Your task to perform on an android device: turn on priority inbox in the gmail app Image 0: 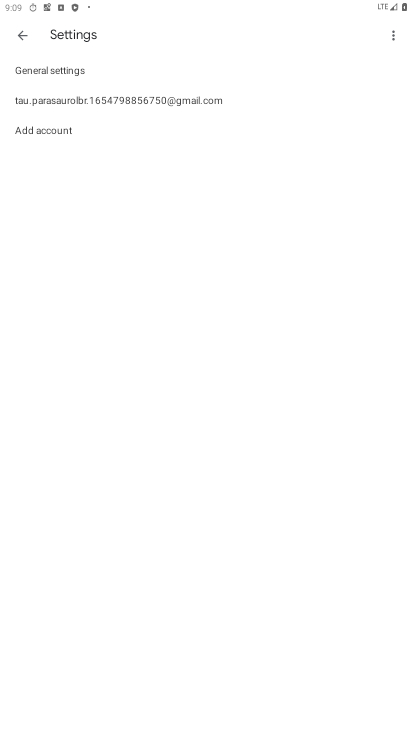
Step 0: press home button
Your task to perform on an android device: turn on priority inbox in the gmail app Image 1: 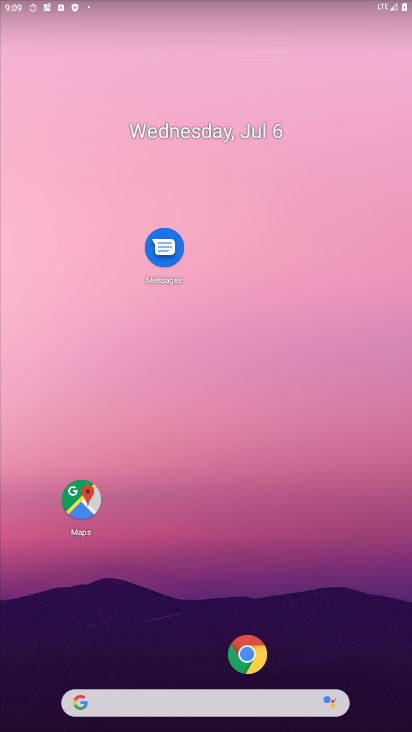
Step 1: drag from (182, 644) to (191, 94)
Your task to perform on an android device: turn on priority inbox in the gmail app Image 2: 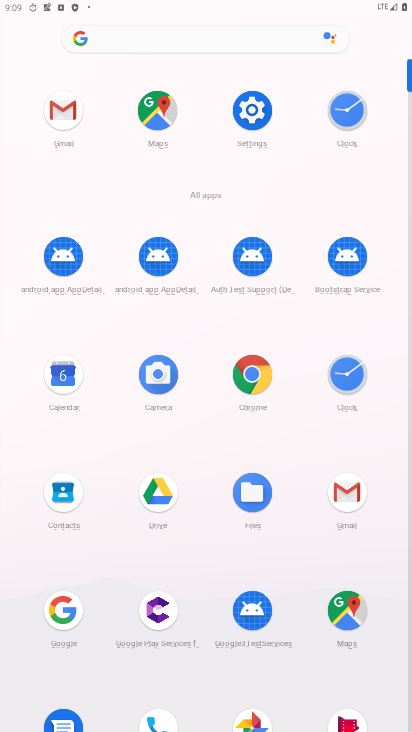
Step 2: click (46, 107)
Your task to perform on an android device: turn on priority inbox in the gmail app Image 3: 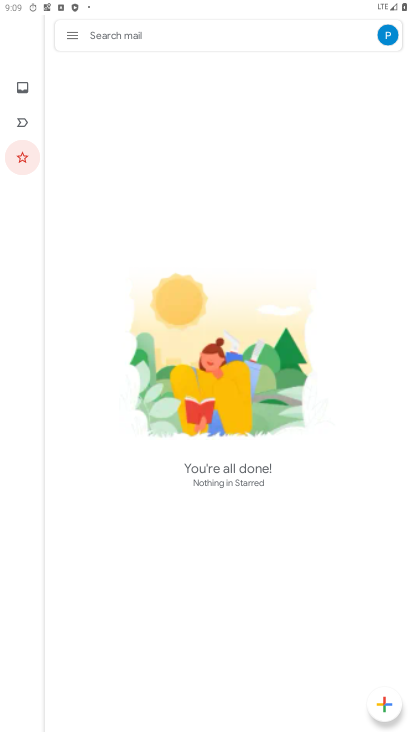
Step 3: click (73, 37)
Your task to perform on an android device: turn on priority inbox in the gmail app Image 4: 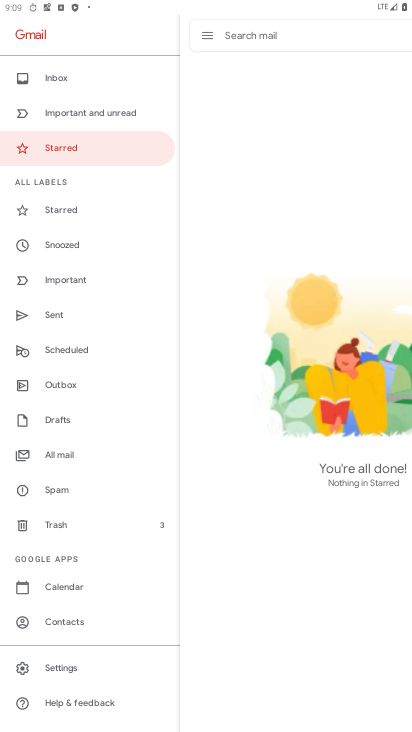
Step 4: click (54, 673)
Your task to perform on an android device: turn on priority inbox in the gmail app Image 5: 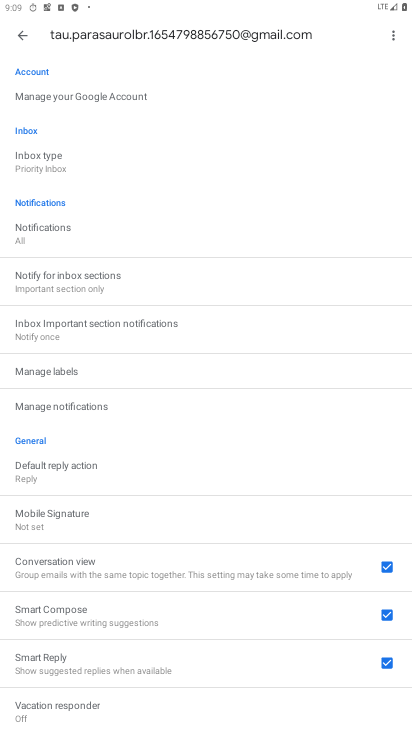
Step 5: click (134, 151)
Your task to perform on an android device: turn on priority inbox in the gmail app Image 6: 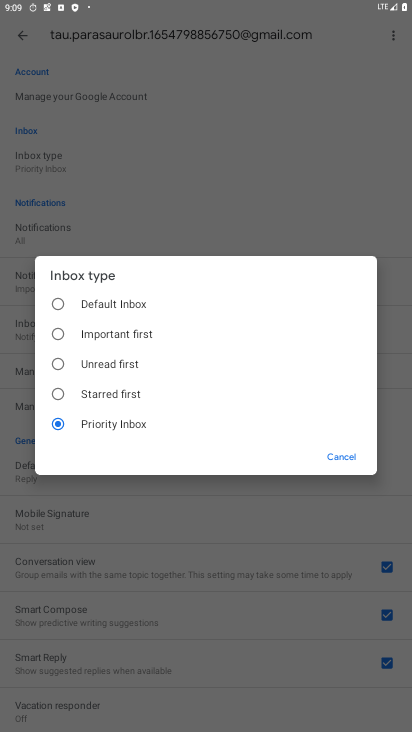
Step 6: task complete